Your task to perform on an android device: Open internet settings Image 0: 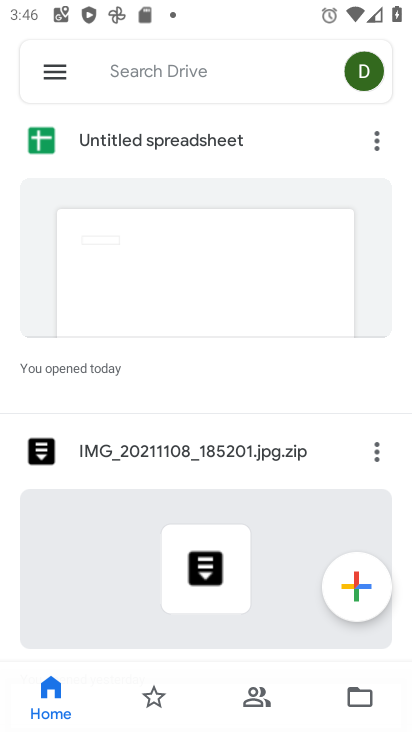
Step 0: press home button
Your task to perform on an android device: Open internet settings Image 1: 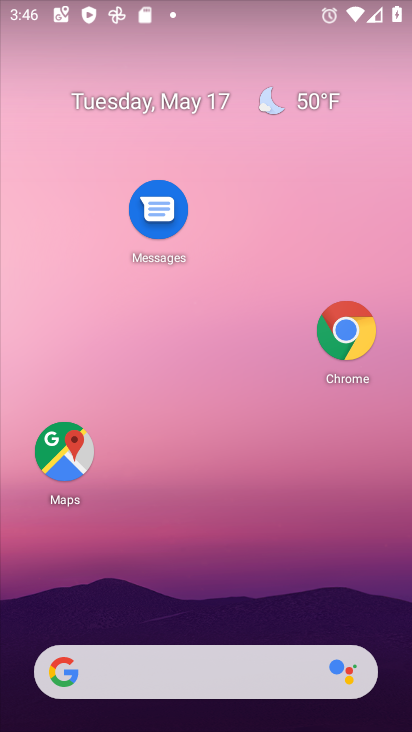
Step 1: drag from (195, 606) to (297, 107)
Your task to perform on an android device: Open internet settings Image 2: 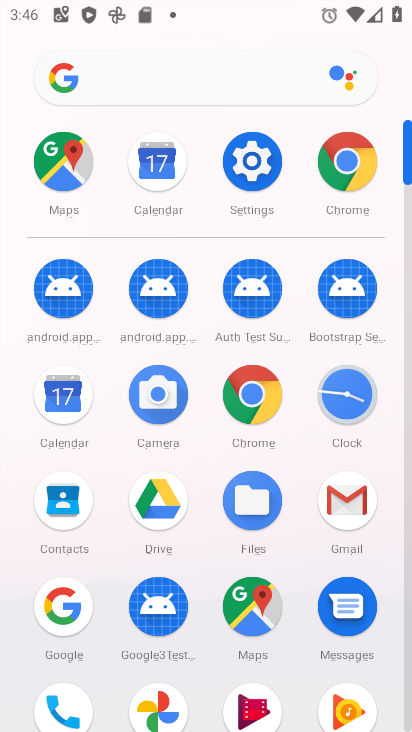
Step 2: click (272, 181)
Your task to perform on an android device: Open internet settings Image 3: 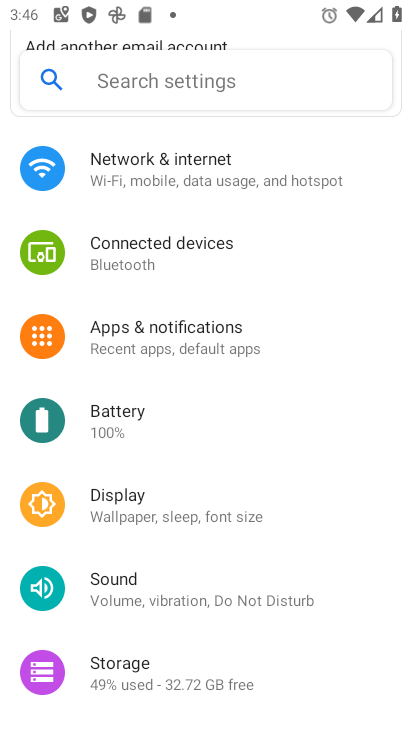
Step 3: click (191, 192)
Your task to perform on an android device: Open internet settings Image 4: 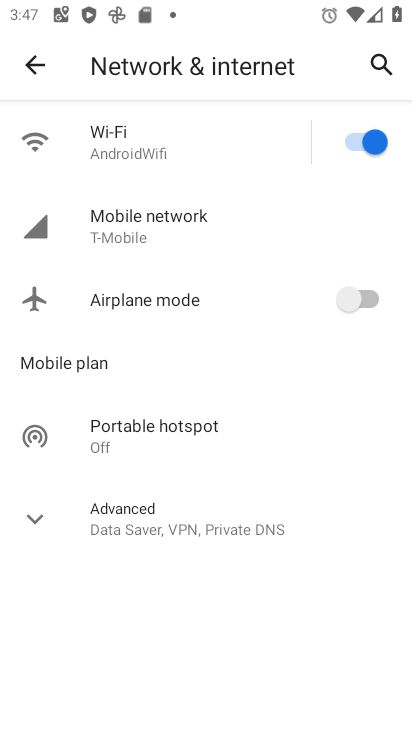
Step 4: task complete